Your task to perform on an android device: Search for seafood restaurants on Google Maps Image 0: 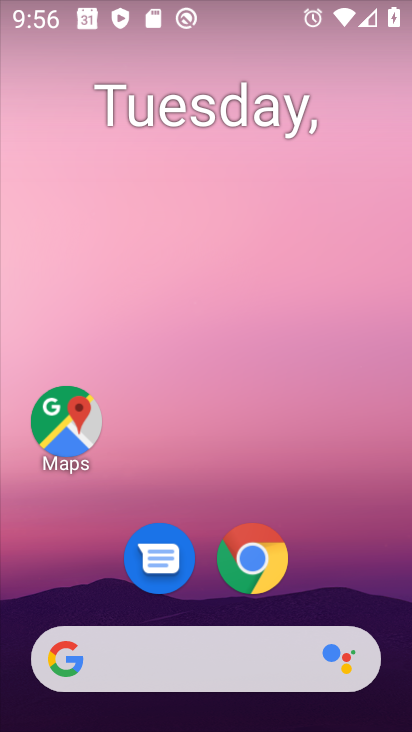
Step 0: drag from (309, 594) to (141, 141)
Your task to perform on an android device: Search for seafood restaurants on Google Maps Image 1: 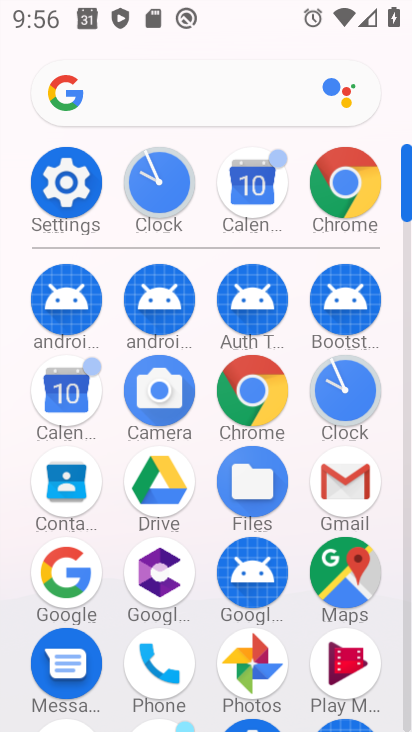
Step 1: click (344, 580)
Your task to perform on an android device: Search for seafood restaurants on Google Maps Image 2: 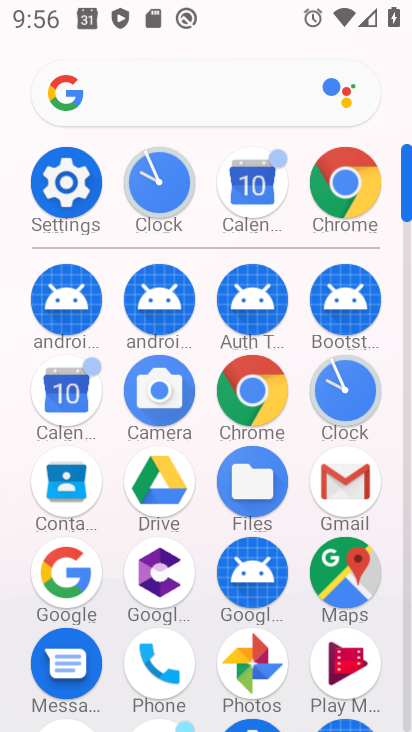
Step 2: click (344, 580)
Your task to perform on an android device: Search for seafood restaurants on Google Maps Image 3: 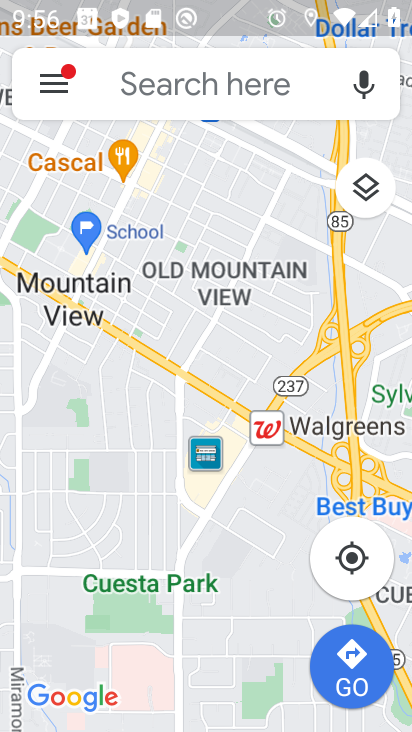
Step 3: click (61, 73)
Your task to perform on an android device: Search for seafood restaurants on Google Maps Image 4: 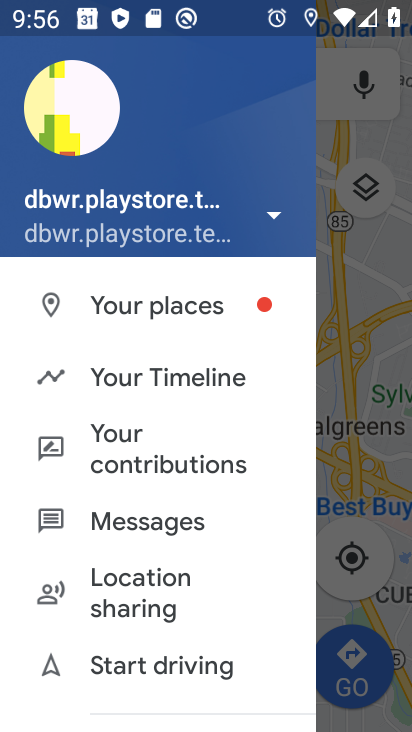
Step 4: click (331, 359)
Your task to perform on an android device: Search for seafood restaurants on Google Maps Image 5: 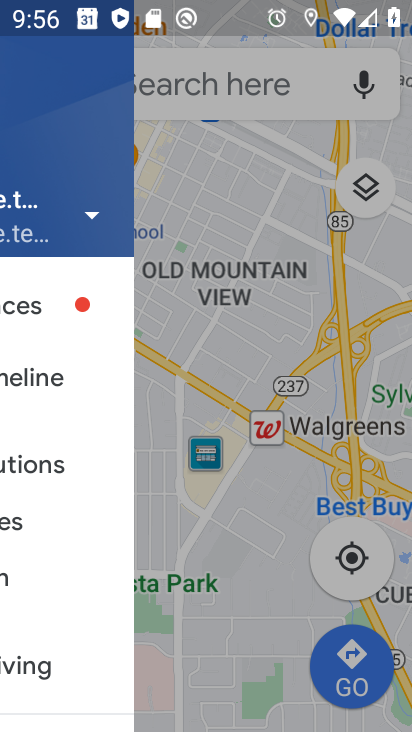
Step 5: click (331, 359)
Your task to perform on an android device: Search for seafood restaurants on Google Maps Image 6: 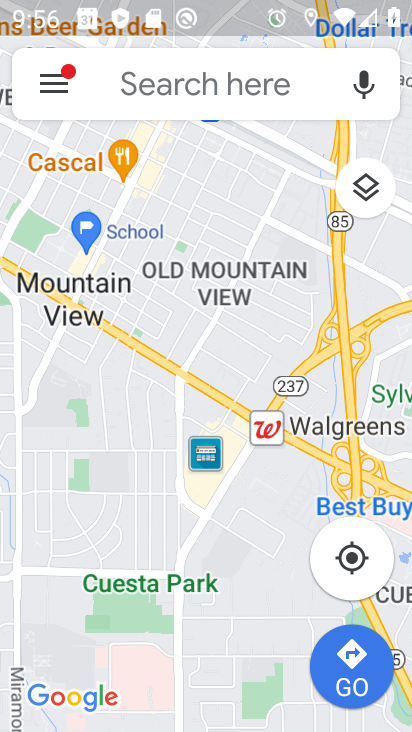
Step 6: click (331, 361)
Your task to perform on an android device: Search for seafood restaurants on Google Maps Image 7: 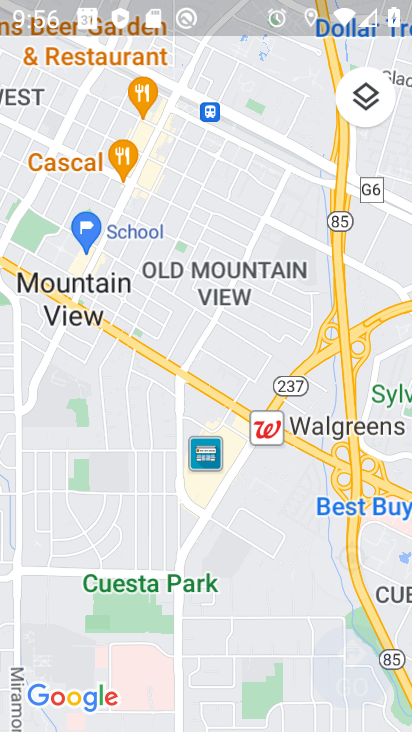
Step 7: click (134, 89)
Your task to perform on an android device: Search for seafood restaurants on Google Maps Image 8: 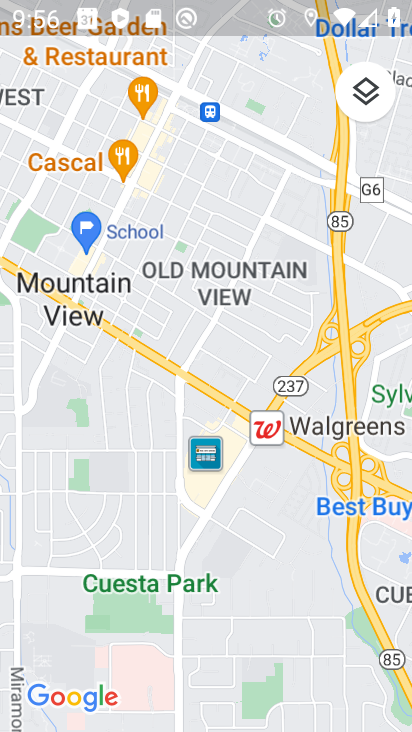
Step 8: click (137, 88)
Your task to perform on an android device: Search for seafood restaurants on Google Maps Image 9: 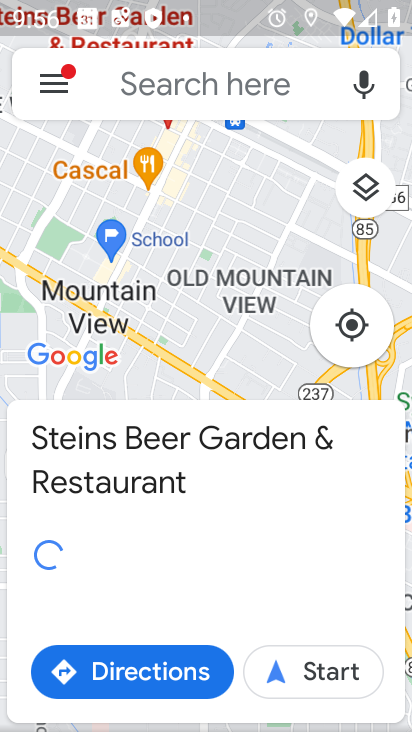
Step 9: press back button
Your task to perform on an android device: Search for seafood restaurants on Google Maps Image 10: 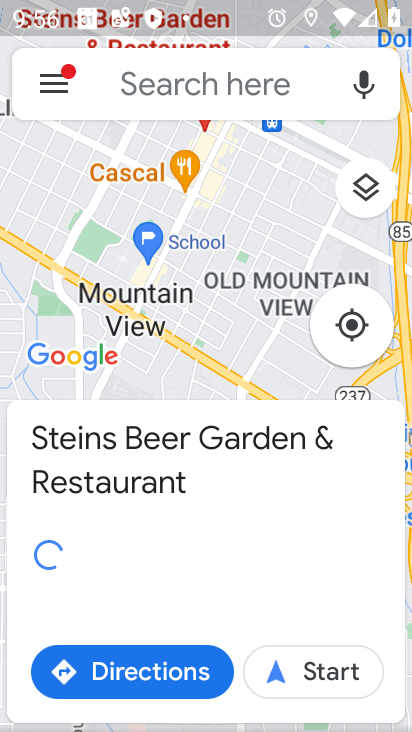
Step 10: click (129, 79)
Your task to perform on an android device: Search for seafood restaurants on Google Maps Image 11: 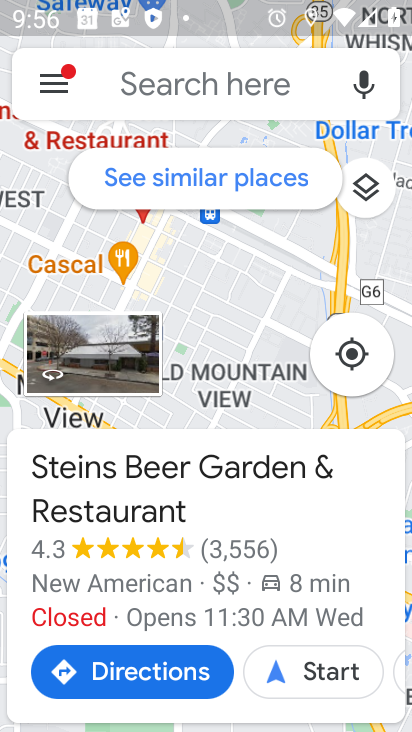
Step 11: click (119, 77)
Your task to perform on an android device: Search for seafood restaurants on Google Maps Image 12: 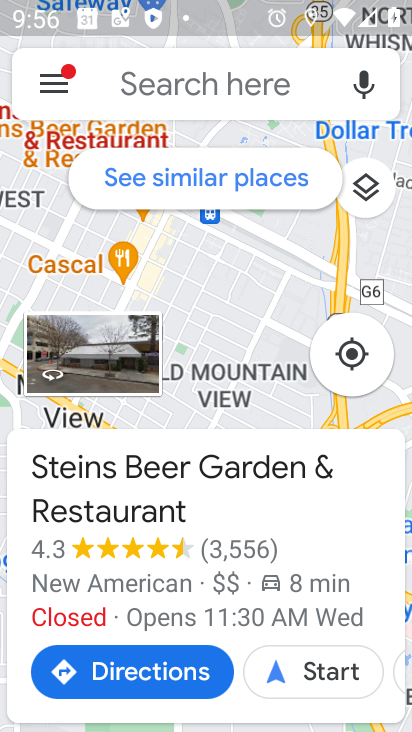
Step 12: click (119, 77)
Your task to perform on an android device: Search for seafood restaurants on Google Maps Image 13: 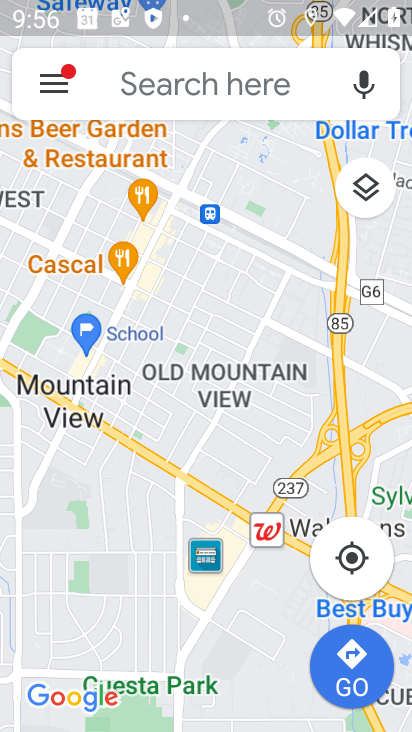
Step 13: click (134, 79)
Your task to perform on an android device: Search for seafood restaurants on Google Maps Image 14: 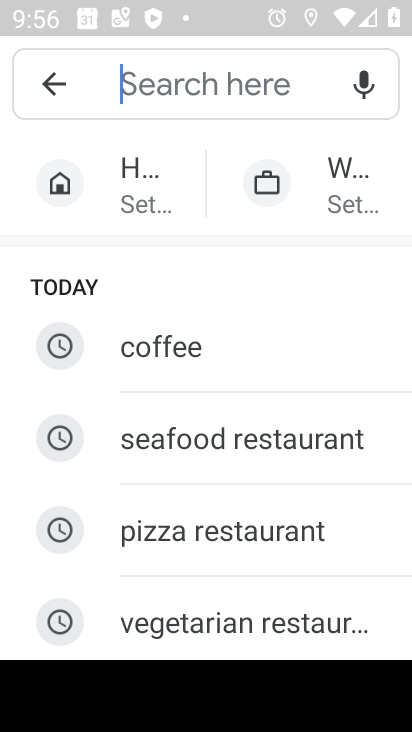
Step 14: click (183, 440)
Your task to perform on an android device: Search for seafood restaurants on Google Maps Image 15: 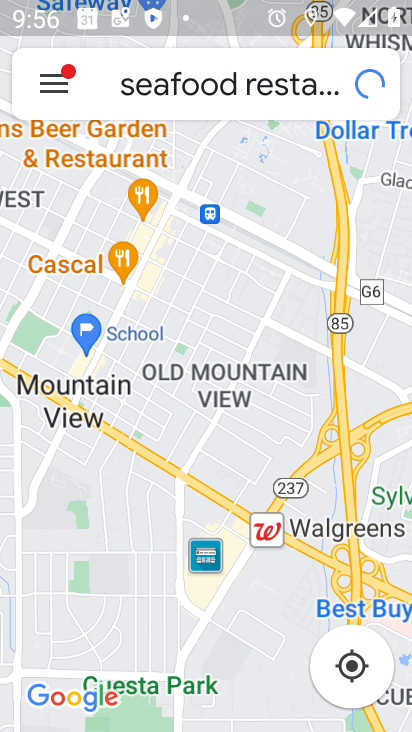
Step 15: click (180, 74)
Your task to perform on an android device: Search for seafood restaurants on Google Maps Image 16: 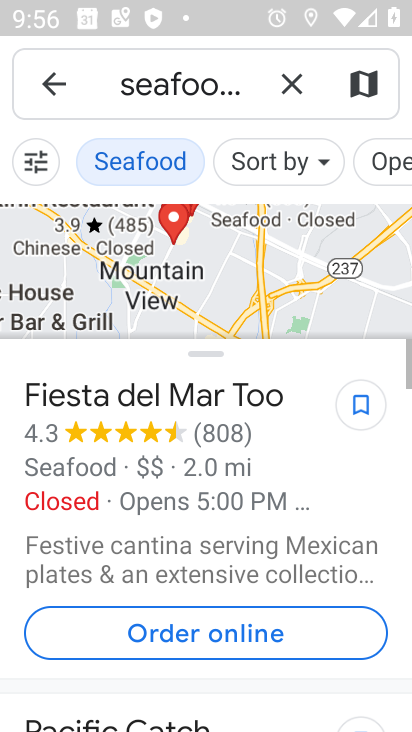
Step 16: click (139, 89)
Your task to perform on an android device: Search for seafood restaurants on Google Maps Image 17: 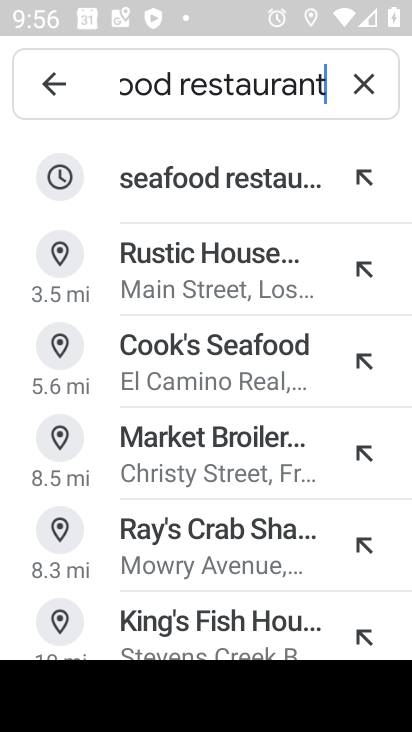
Step 17: click (253, 173)
Your task to perform on an android device: Search for seafood restaurants on Google Maps Image 18: 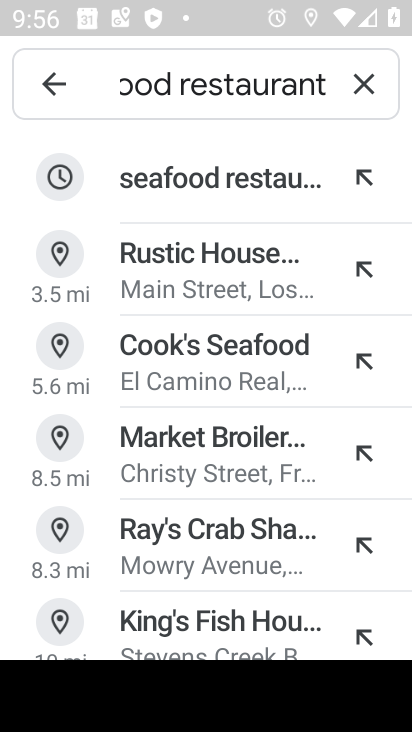
Step 18: click (253, 173)
Your task to perform on an android device: Search for seafood restaurants on Google Maps Image 19: 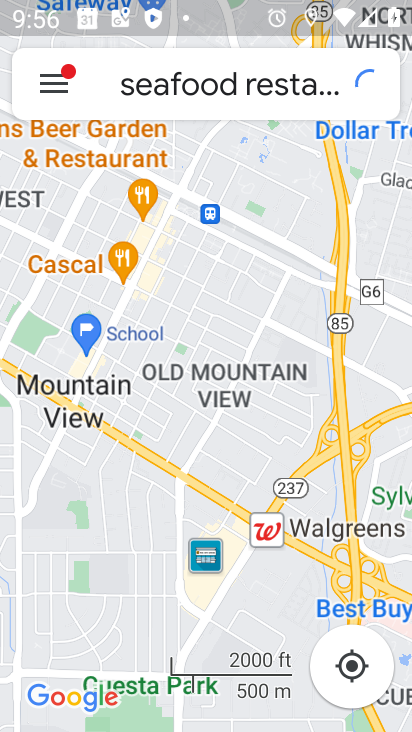
Step 19: task complete